Your task to perform on an android device: show emergency info Image 0: 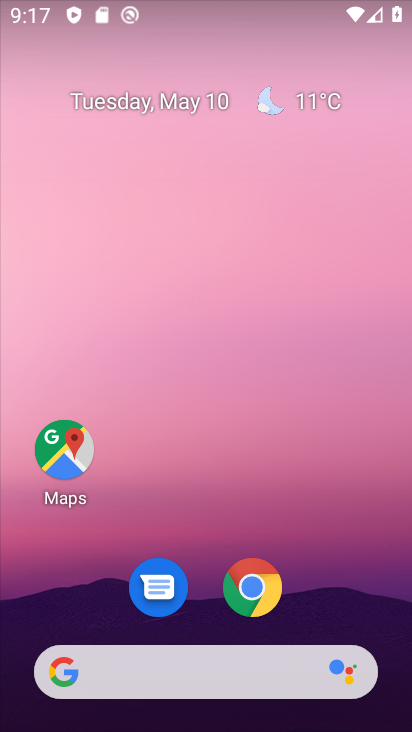
Step 0: drag from (338, 601) to (289, 225)
Your task to perform on an android device: show emergency info Image 1: 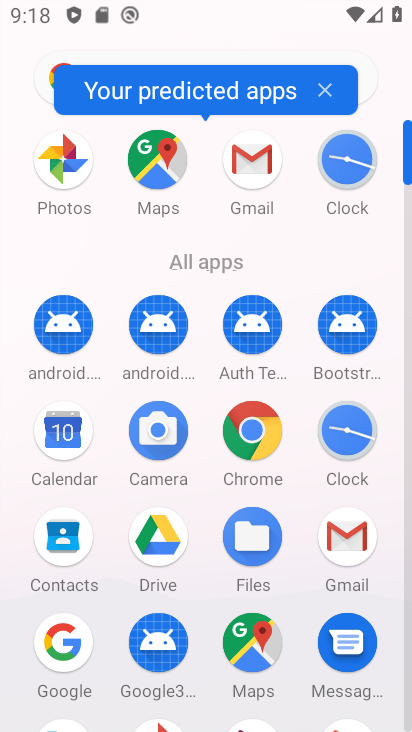
Step 1: drag from (197, 614) to (147, 232)
Your task to perform on an android device: show emergency info Image 2: 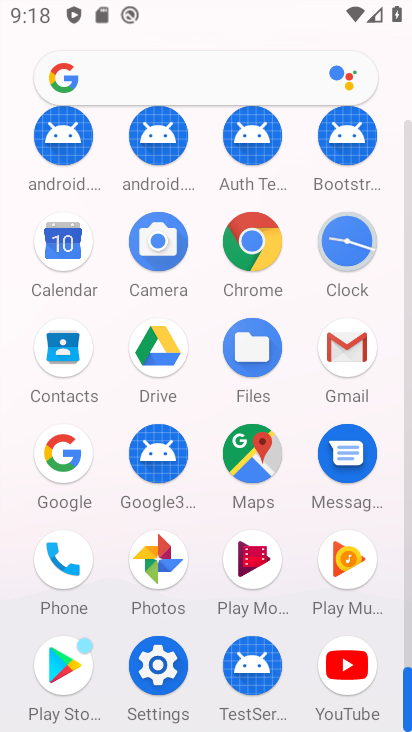
Step 2: click (165, 675)
Your task to perform on an android device: show emergency info Image 3: 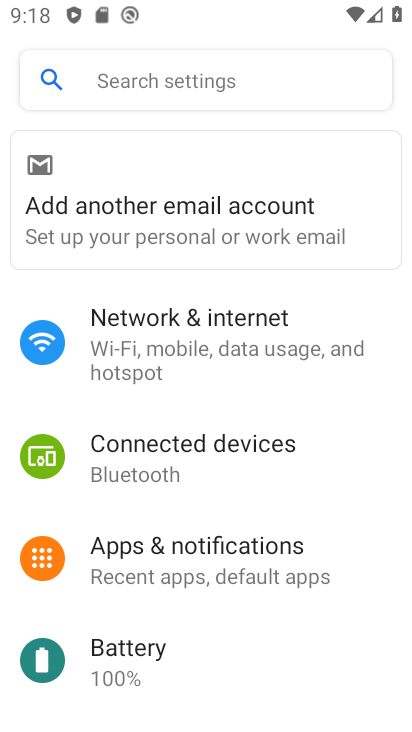
Step 3: drag from (326, 659) to (247, 263)
Your task to perform on an android device: show emergency info Image 4: 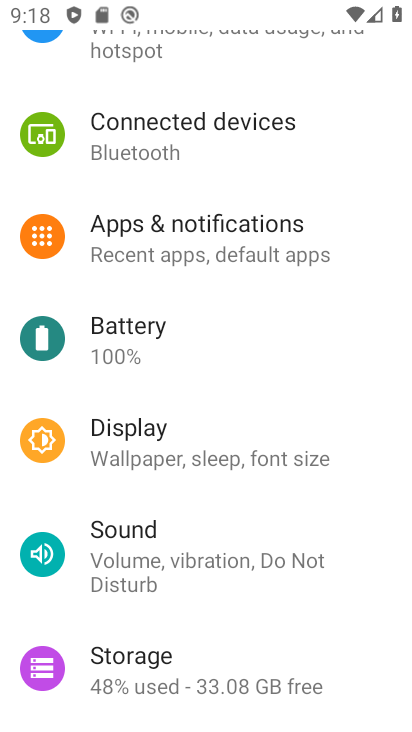
Step 4: drag from (265, 456) to (265, 281)
Your task to perform on an android device: show emergency info Image 5: 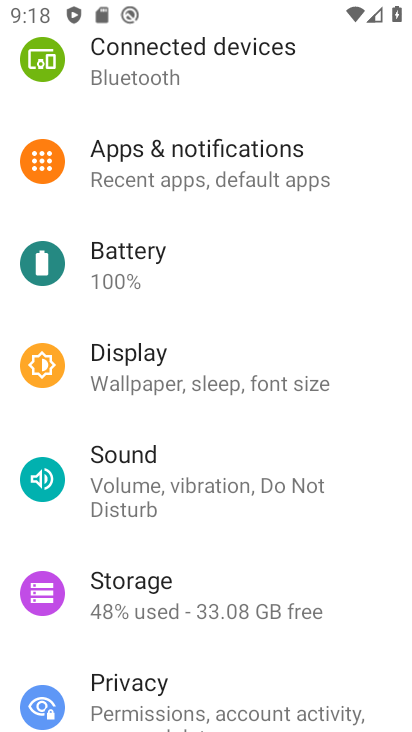
Step 5: drag from (265, 650) to (284, 258)
Your task to perform on an android device: show emergency info Image 6: 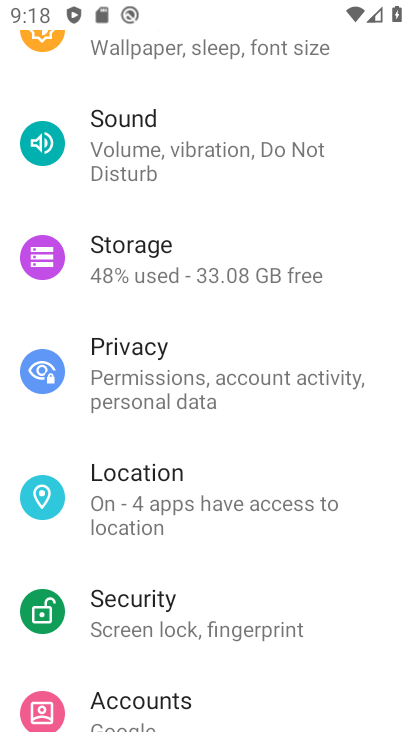
Step 6: drag from (311, 707) to (330, 232)
Your task to perform on an android device: show emergency info Image 7: 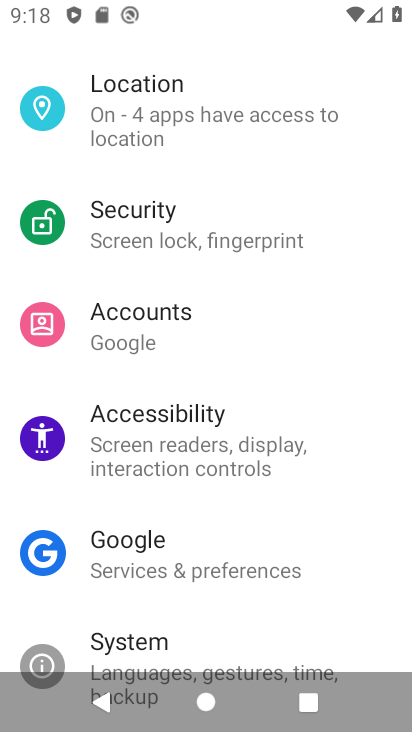
Step 7: drag from (284, 577) to (292, 213)
Your task to perform on an android device: show emergency info Image 8: 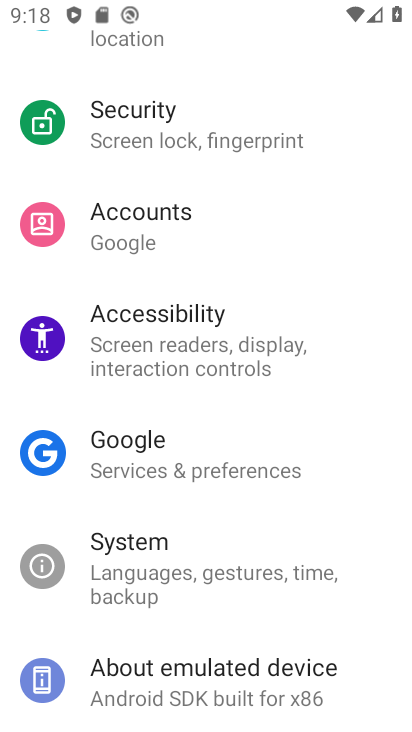
Step 8: click (186, 682)
Your task to perform on an android device: show emergency info Image 9: 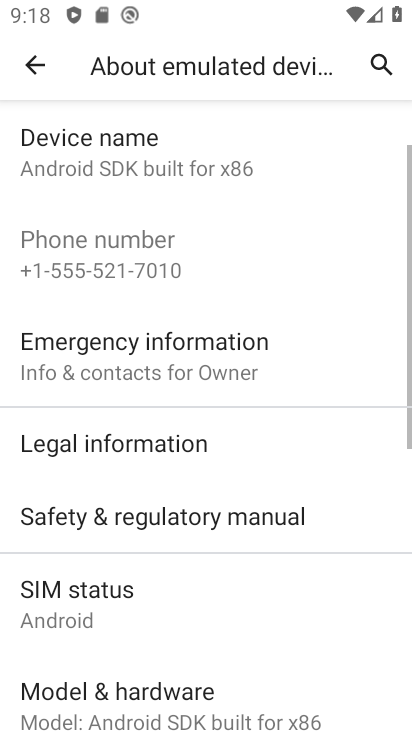
Step 9: click (174, 365)
Your task to perform on an android device: show emergency info Image 10: 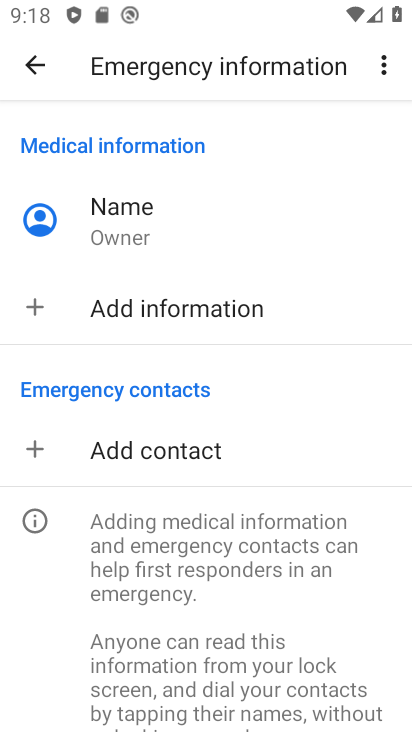
Step 10: task complete